Your task to perform on an android device: open chrome and create a bookmark for the current page Image 0: 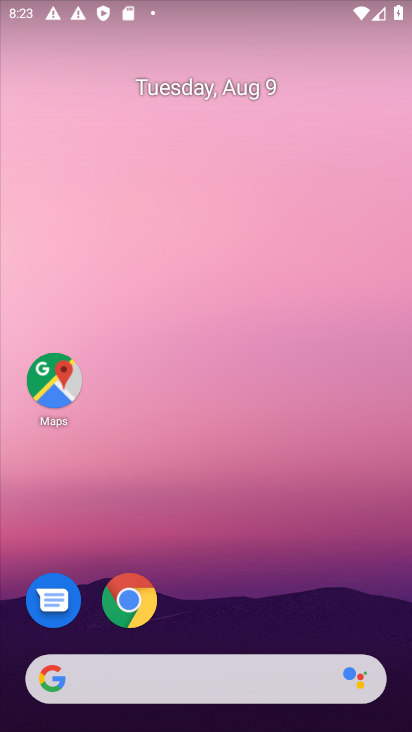
Step 0: press home button
Your task to perform on an android device: open chrome and create a bookmark for the current page Image 1: 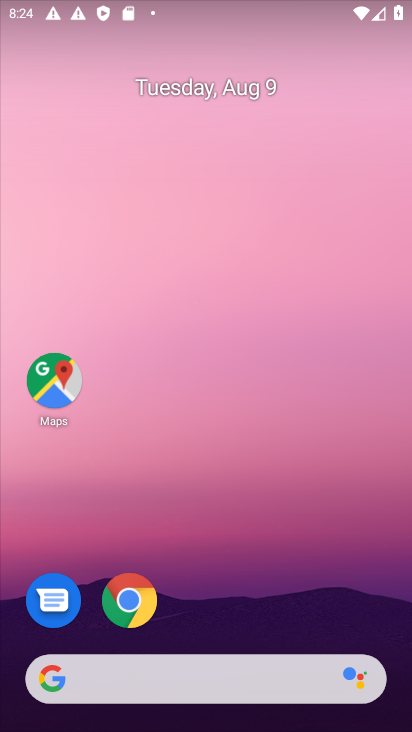
Step 1: click (129, 613)
Your task to perform on an android device: open chrome and create a bookmark for the current page Image 2: 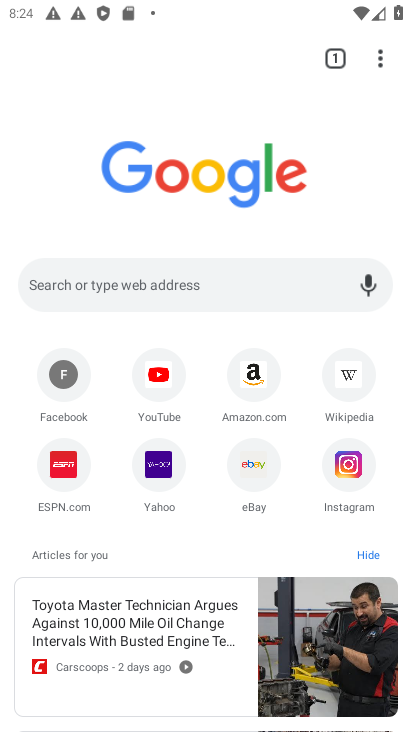
Step 2: task complete